Your task to perform on an android device: turn smart compose on in the gmail app Image 0: 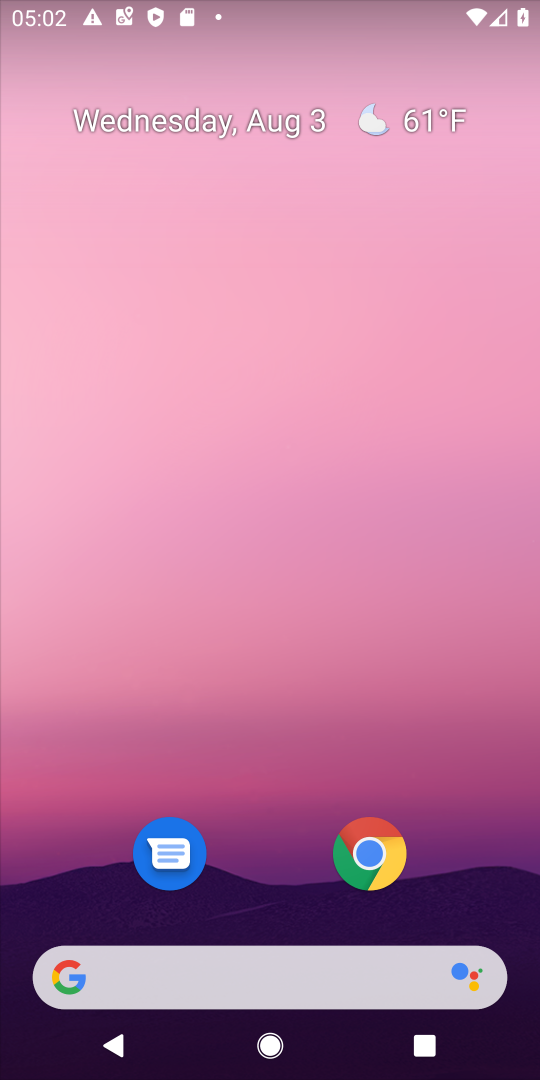
Step 0: drag from (267, 893) to (294, 3)
Your task to perform on an android device: turn smart compose on in the gmail app Image 1: 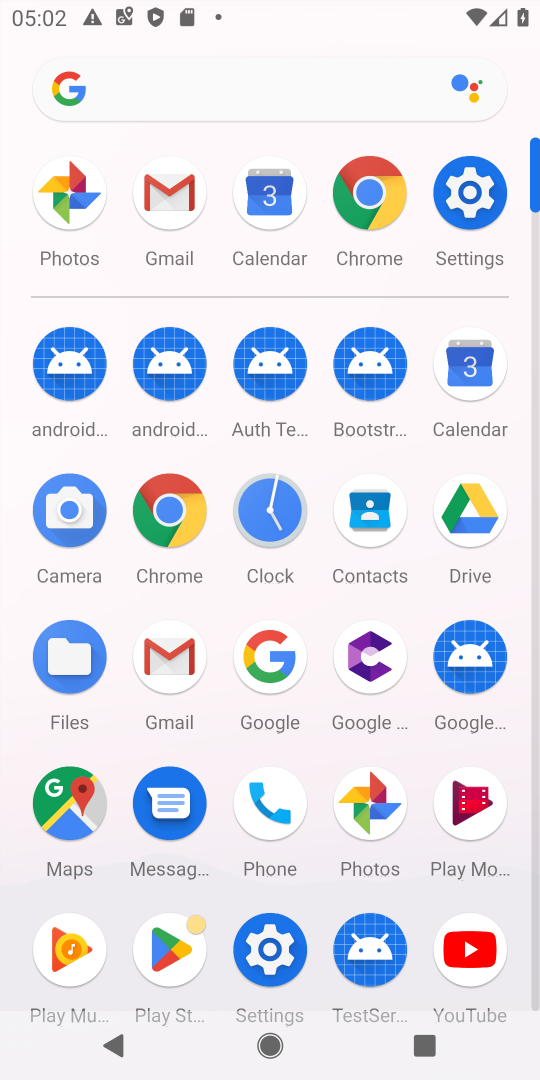
Step 1: click (175, 665)
Your task to perform on an android device: turn smart compose on in the gmail app Image 2: 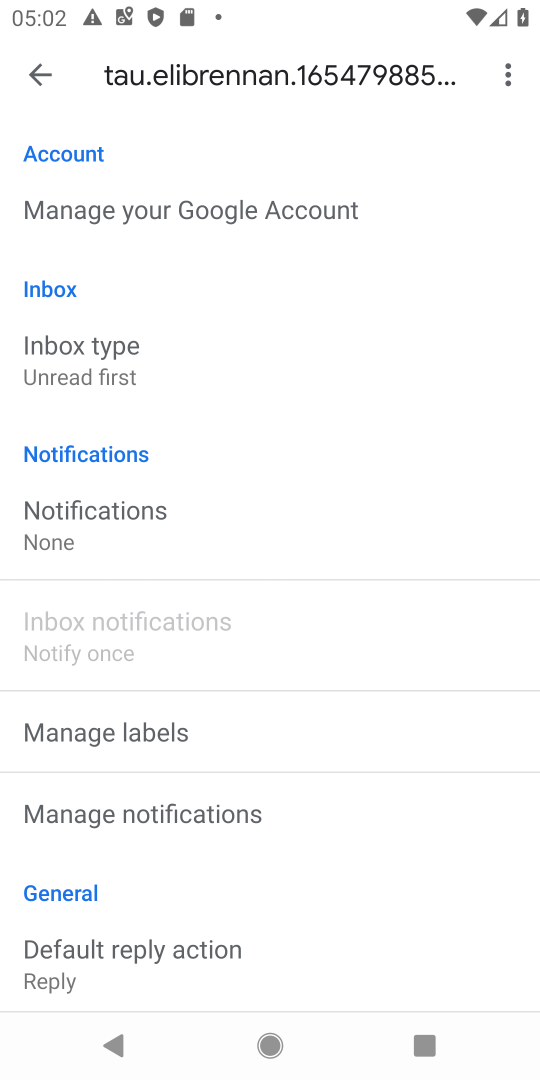
Step 2: task complete